Your task to perform on an android device: Show the shopping cart on newegg. Search for jbl charge 4 on newegg, select the first entry, add it to the cart, then select checkout. Image 0: 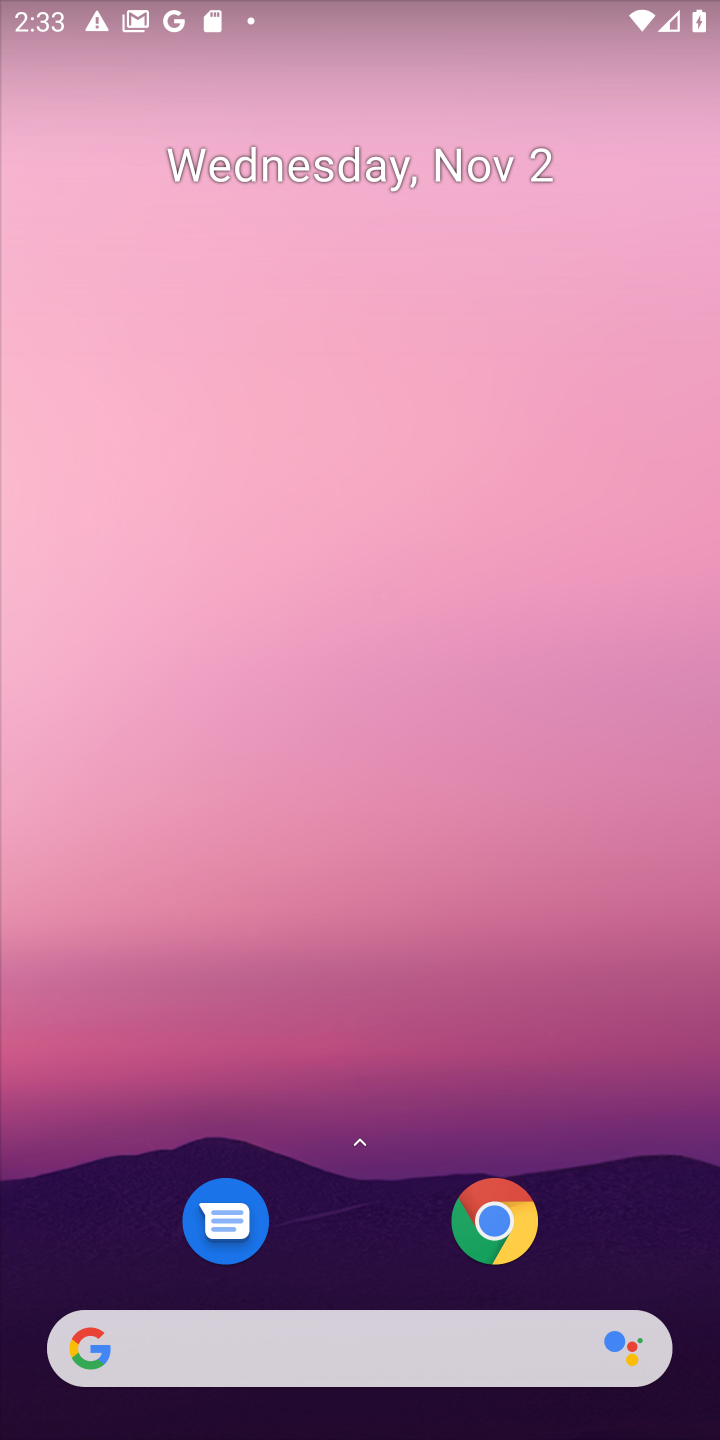
Step 0: click (456, 1336)
Your task to perform on an android device: Show the shopping cart on newegg. Search for jbl charge 4 on newegg, select the first entry, add it to the cart, then select checkout. Image 1: 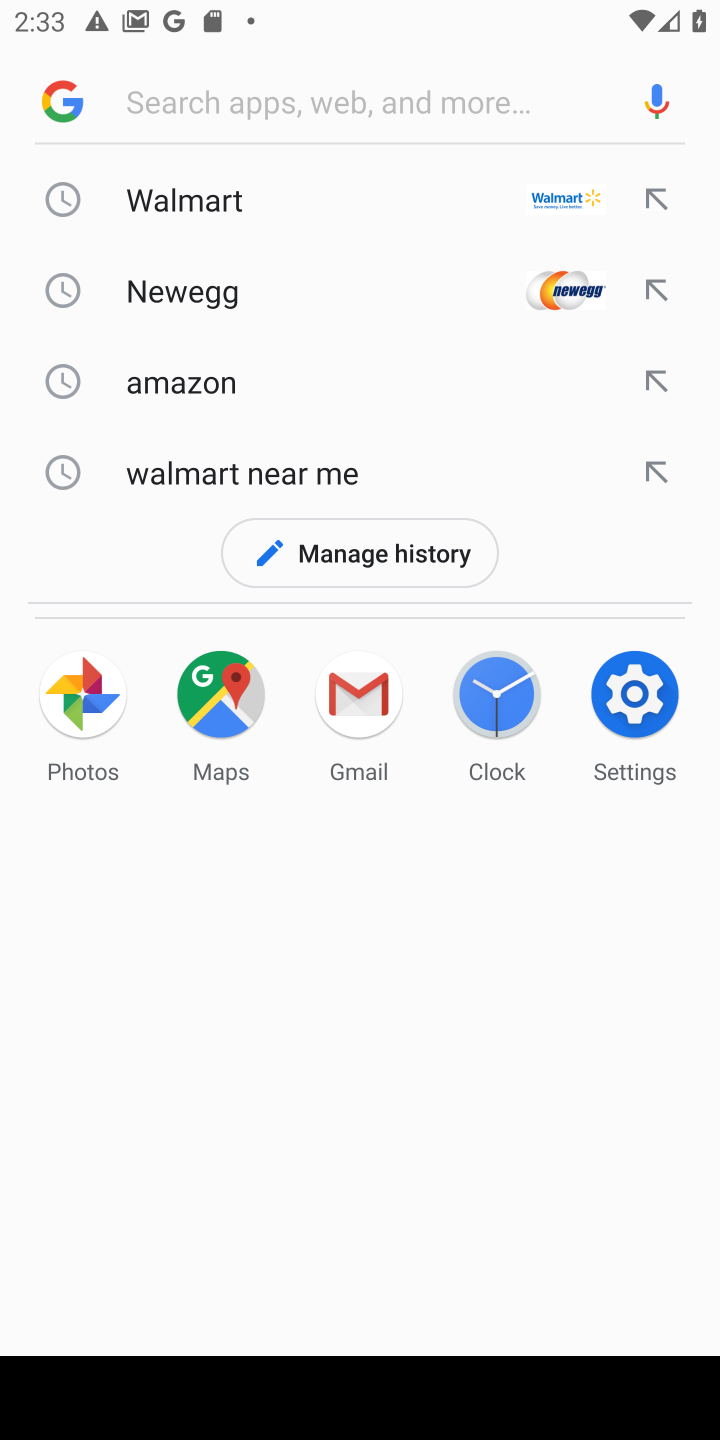
Step 1: click (484, 284)
Your task to perform on an android device: Show the shopping cart on newegg. Search for jbl charge 4 on newegg, select the first entry, add it to the cart, then select checkout. Image 2: 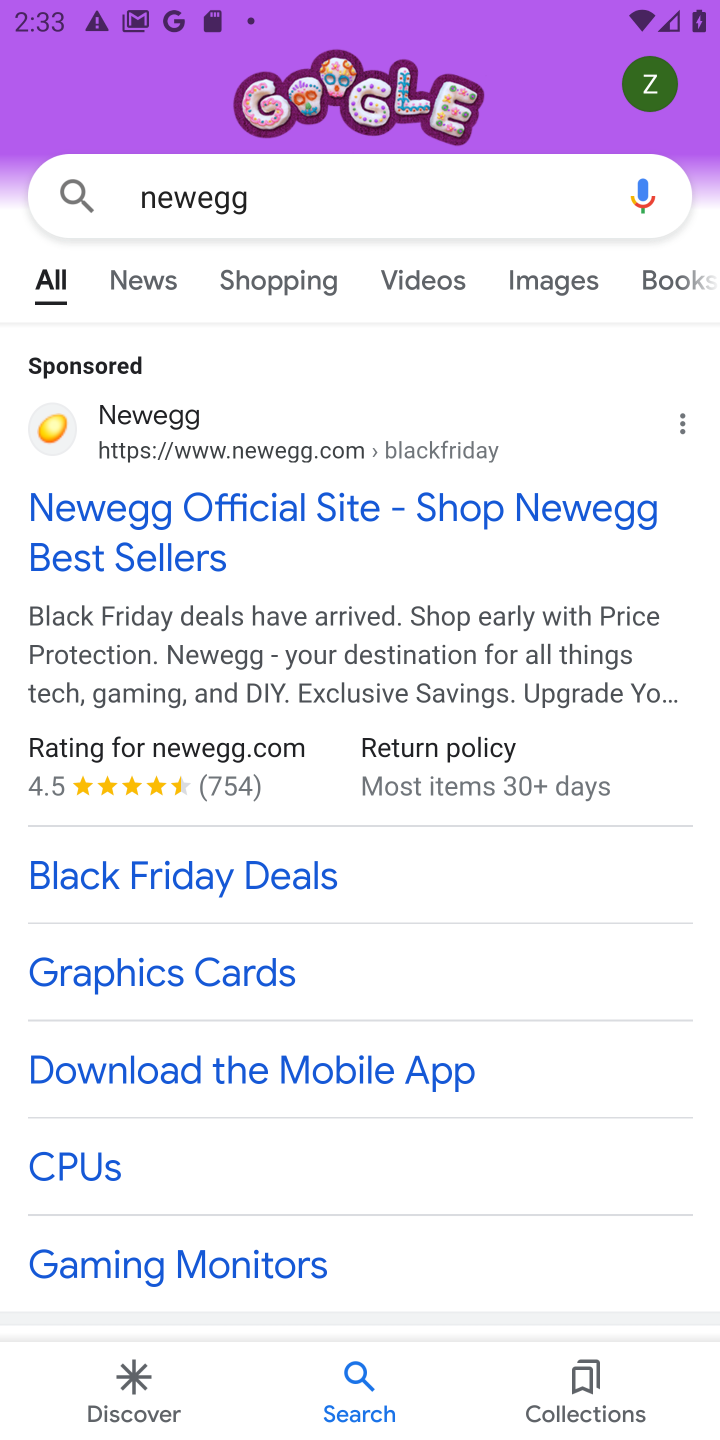
Step 2: click (350, 498)
Your task to perform on an android device: Show the shopping cart on newegg. Search for jbl charge 4 on newegg, select the first entry, add it to the cart, then select checkout. Image 3: 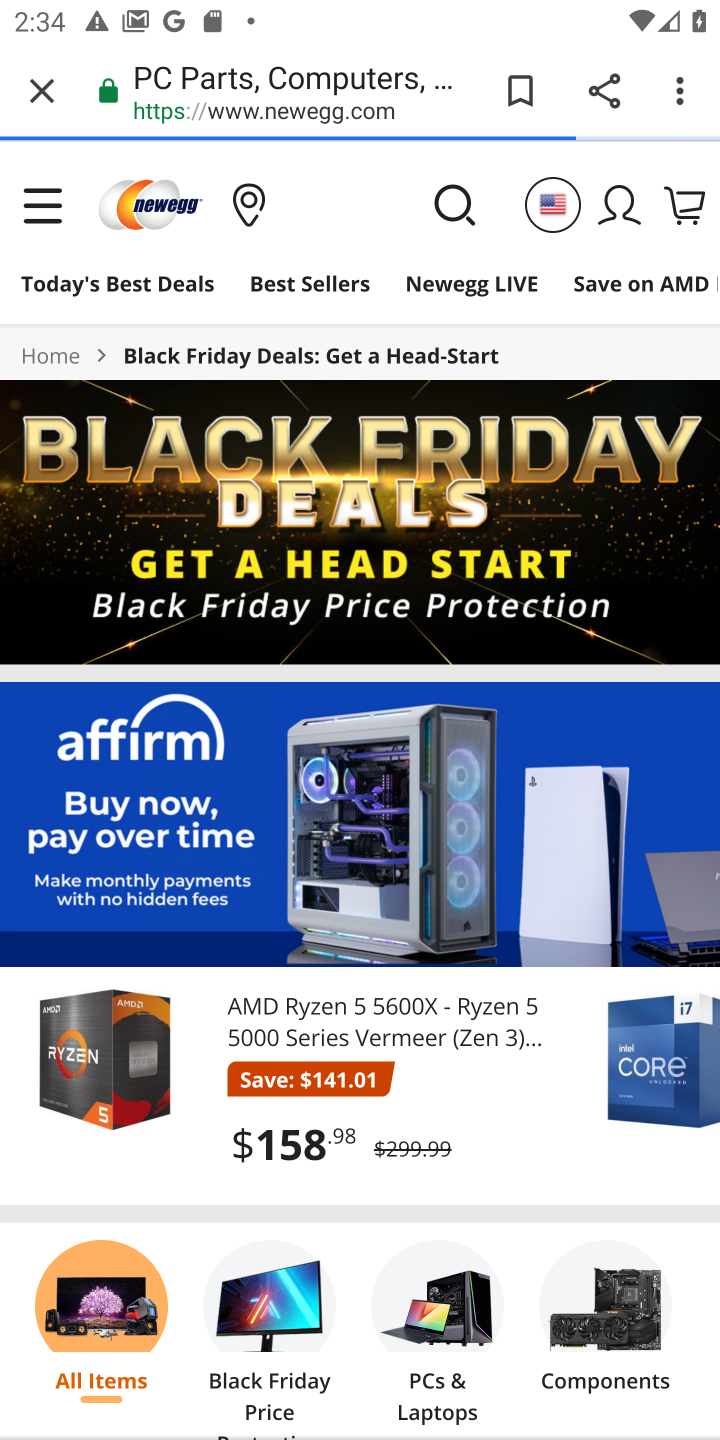
Step 3: click (472, 241)
Your task to perform on an android device: Show the shopping cart on newegg. Search for jbl charge 4 on newegg, select the first entry, add it to the cart, then select checkout. Image 4: 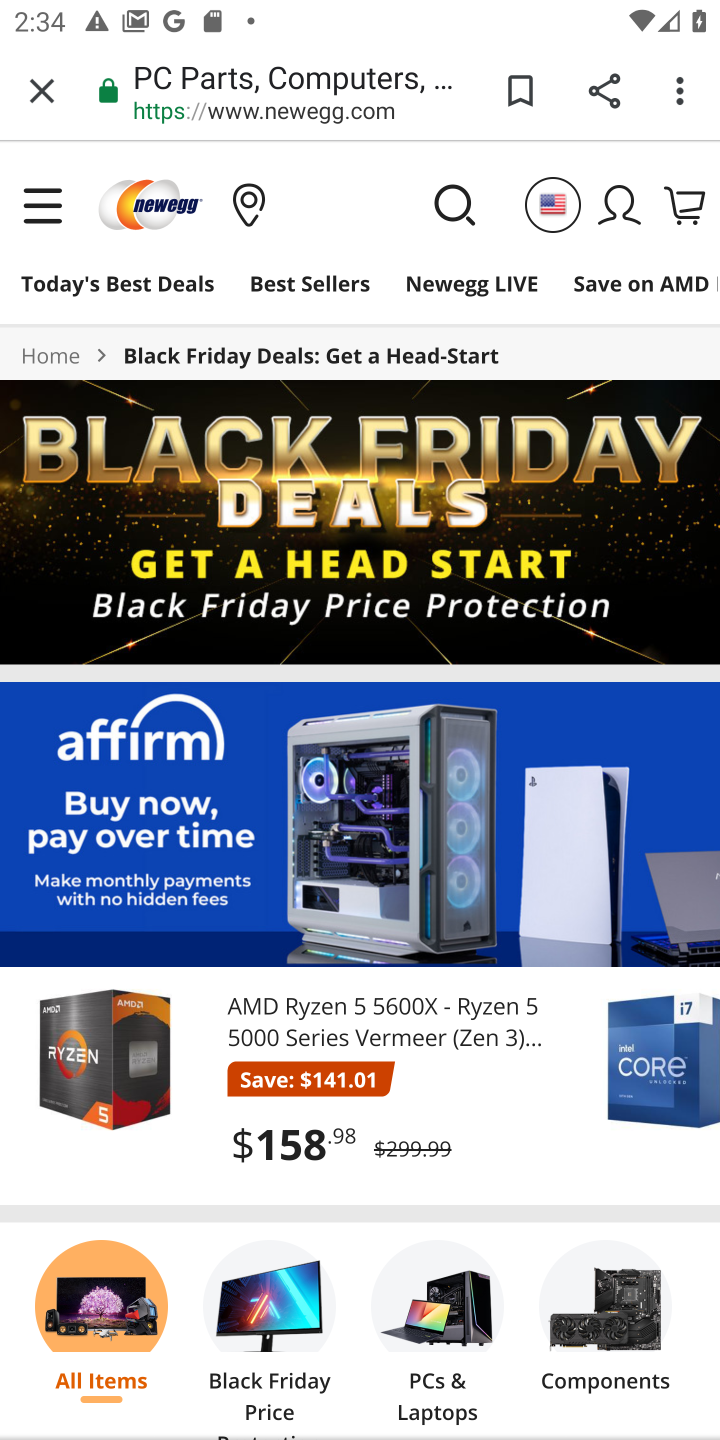
Step 4: click (461, 220)
Your task to perform on an android device: Show the shopping cart on newegg. Search for jbl charge 4 on newegg, select the first entry, add it to the cart, then select checkout. Image 5: 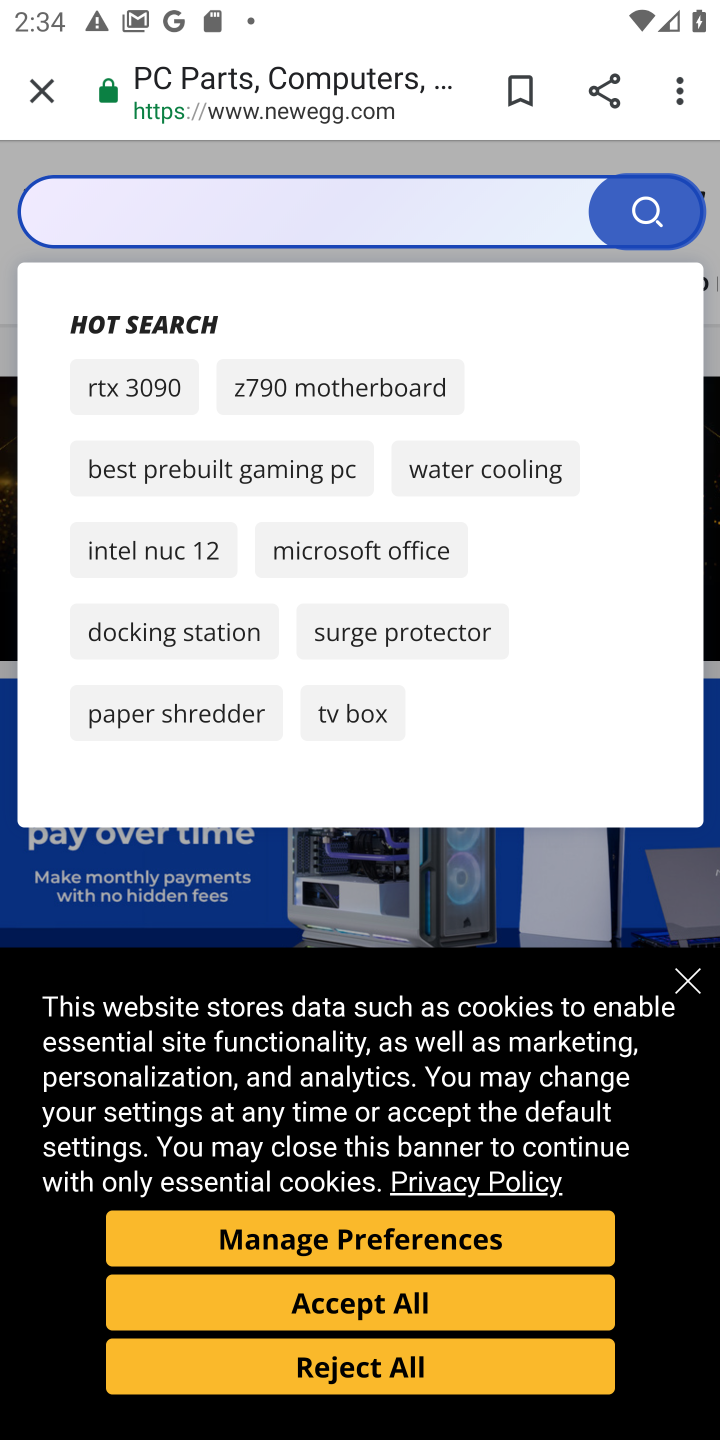
Step 5: click (461, 220)
Your task to perform on an android device: Show the shopping cart on newegg. Search for jbl charge 4 on newegg, select the first entry, add it to the cart, then select checkout. Image 6: 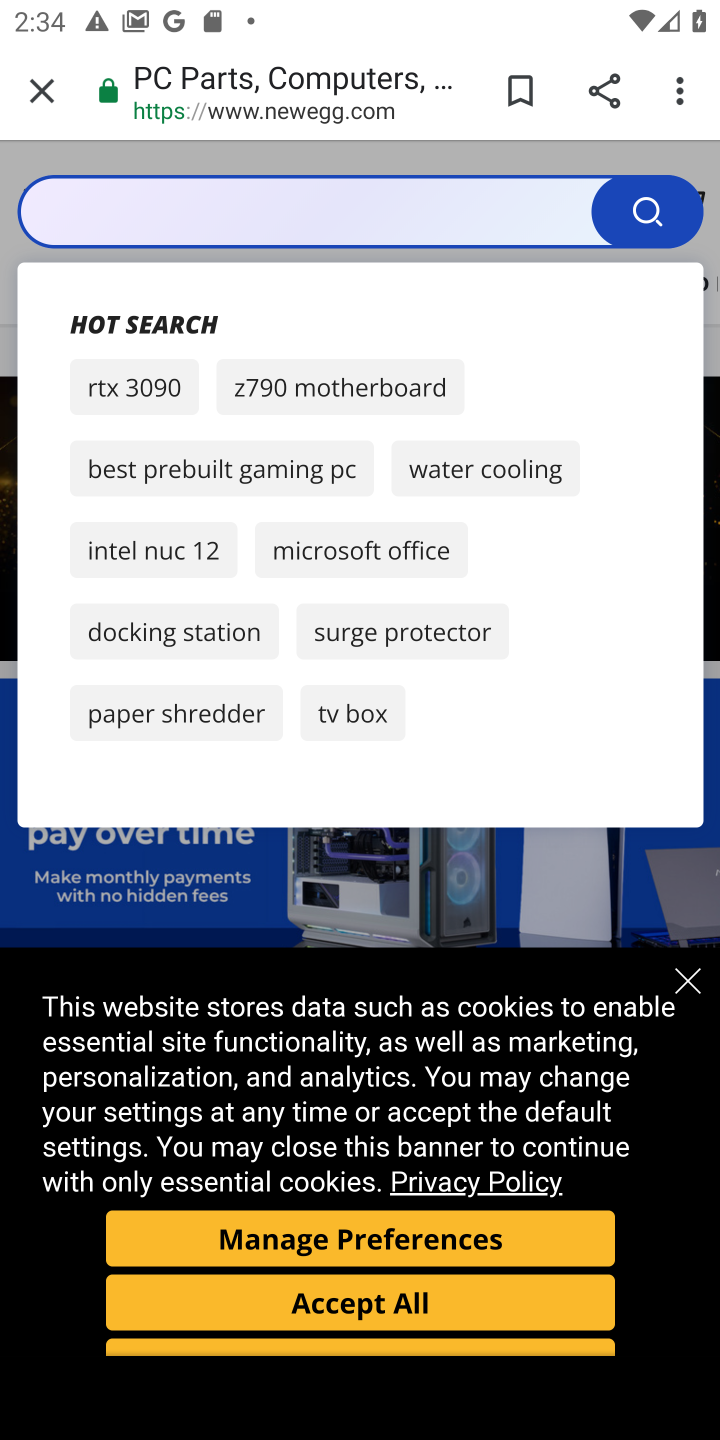
Step 6: click (461, 220)
Your task to perform on an android device: Show the shopping cart on newegg. Search for jbl charge 4 on newegg, select the first entry, add it to the cart, then select checkout. Image 7: 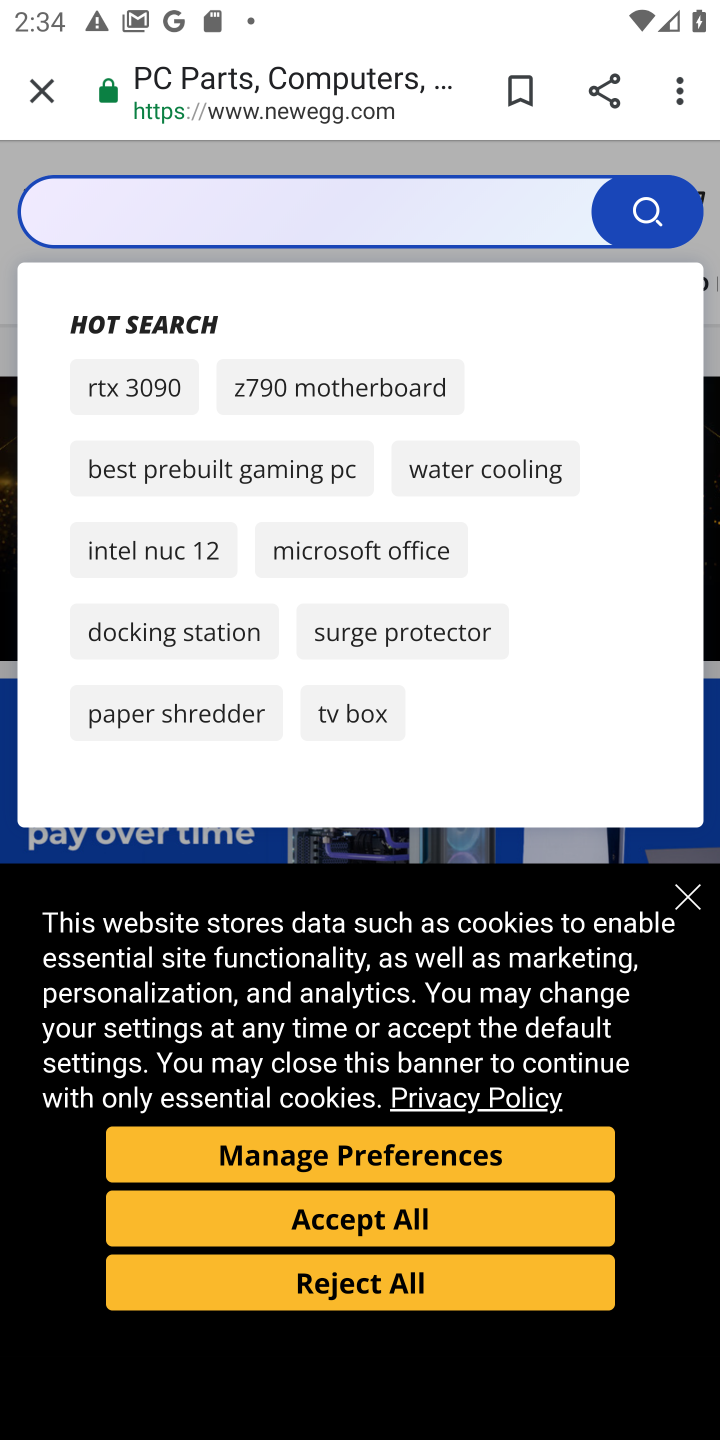
Step 7: type "jbl charge 4"
Your task to perform on an android device: Show the shopping cart on newegg. Search for jbl charge 4 on newegg, select the first entry, add it to the cart, then select checkout. Image 8: 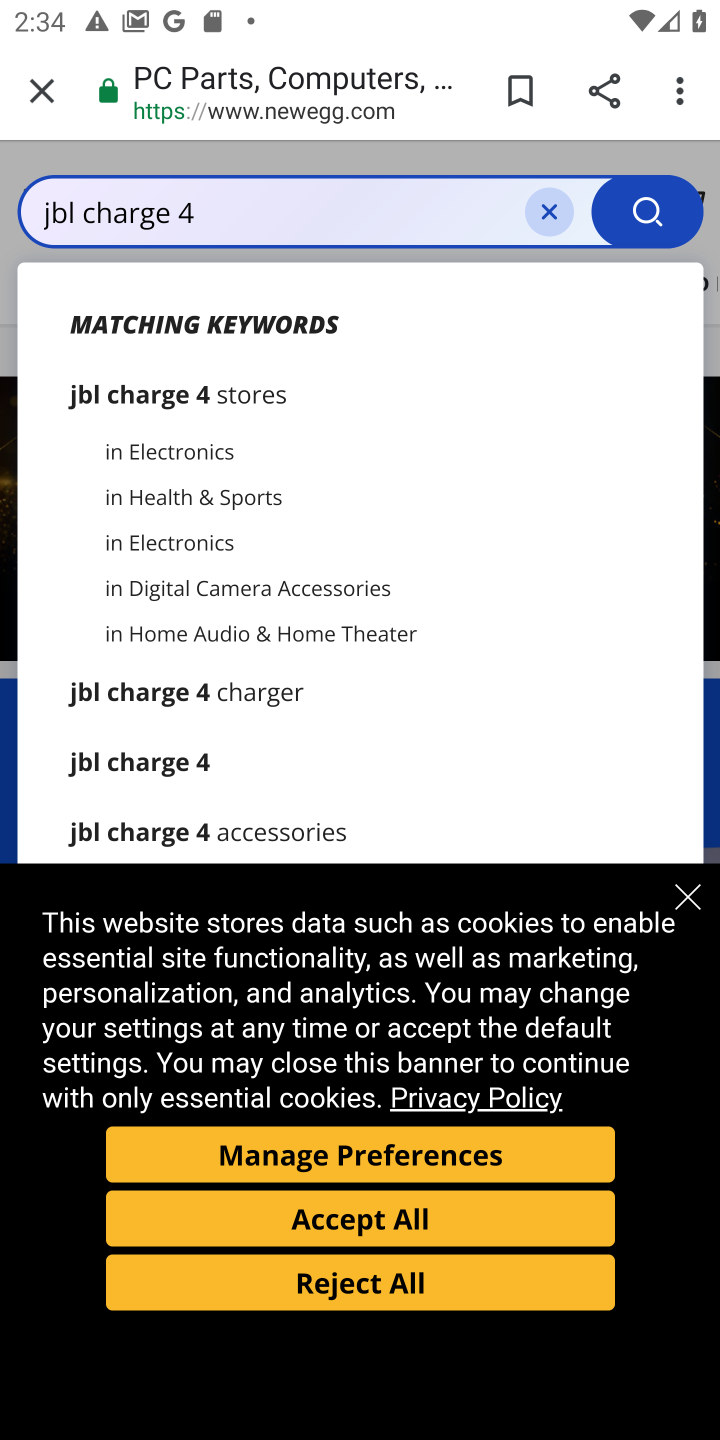
Step 8: click (656, 214)
Your task to perform on an android device: Show the shopping cart on newegg. Search for jbl charge 4 on newegg, select the first entry, add it to the cart, then select checkout. Image 9: 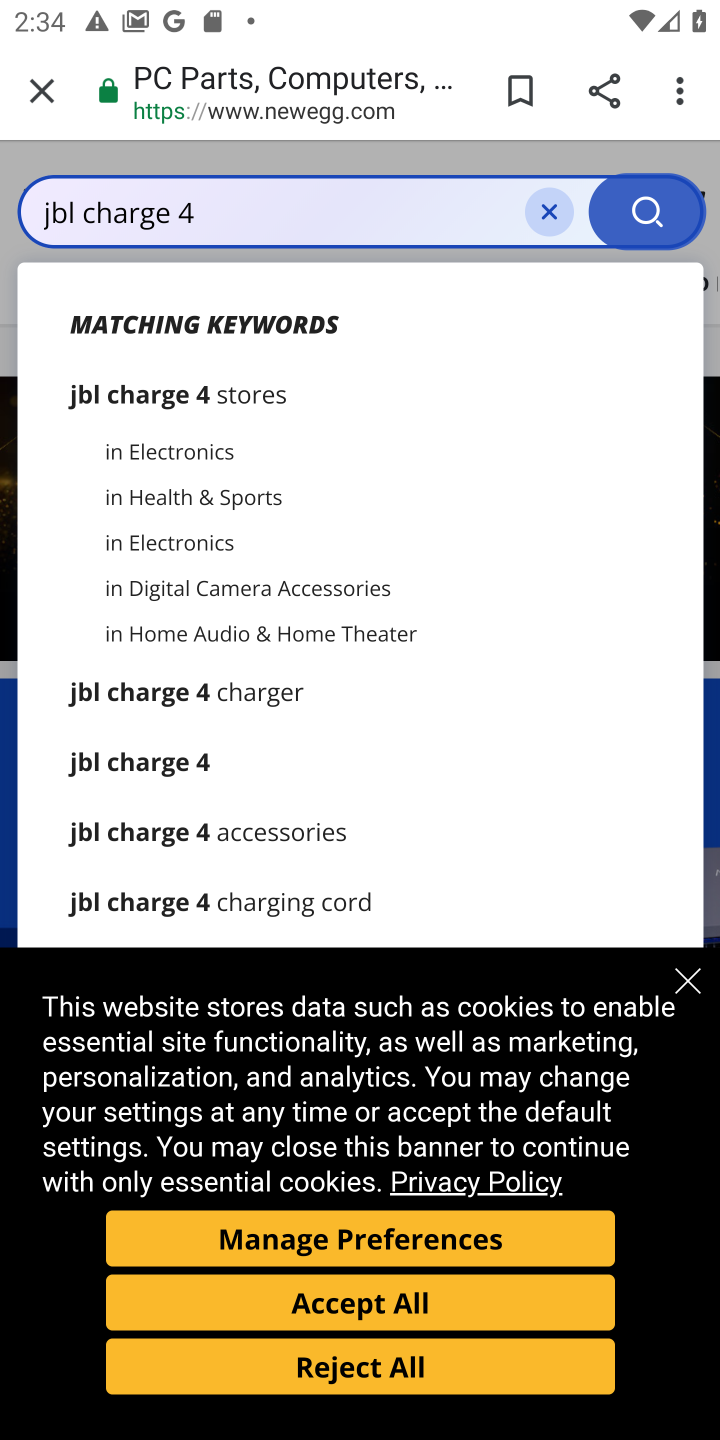
Step 9: click (298, 1326)
Your task to perform on an android device: Show the shopping cart on newegg. Search for jbl charge 4 on newegg, select the first entry, add it to the cart, then select checkout. Image 10: 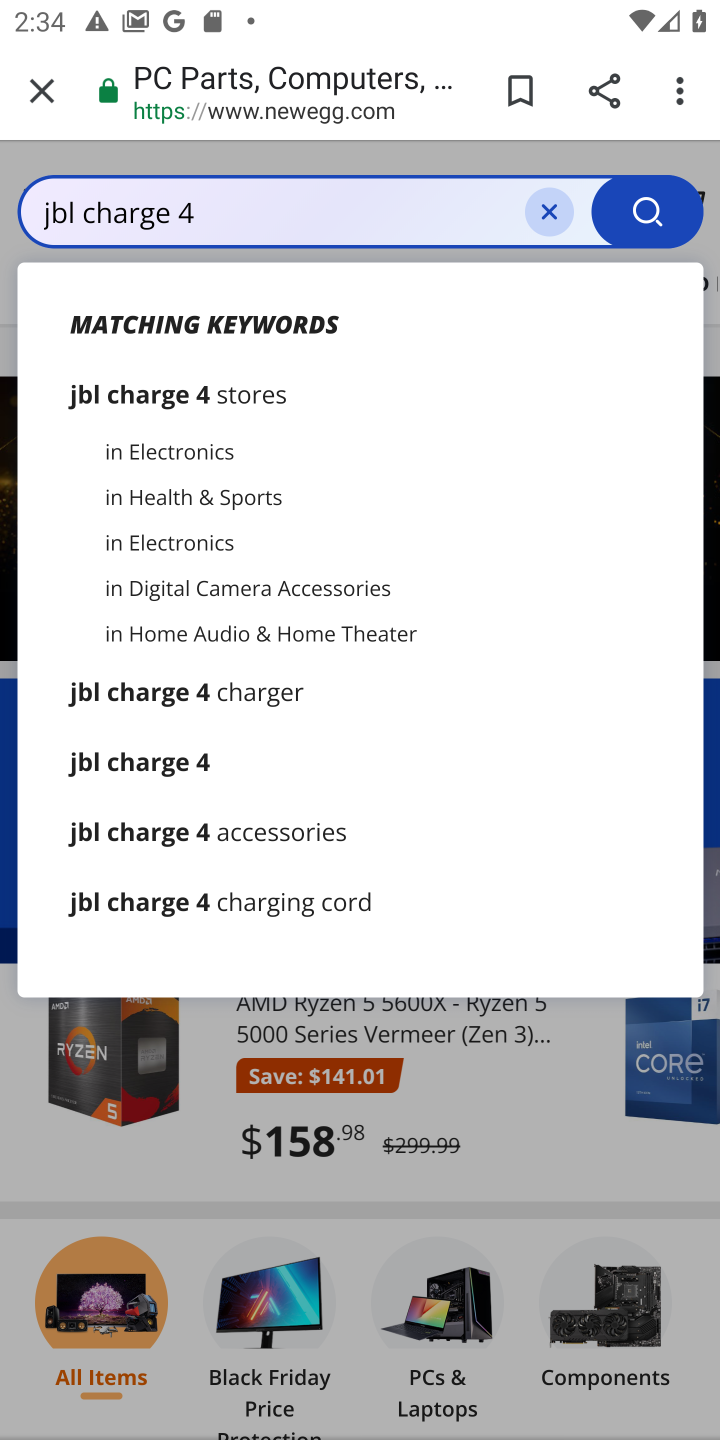
Step 10: click (659, 210)
Your task to perform on an android device: Show the shopping cart on newegg. Search for jbl charge 4 on newegg, select the first entry, add it to the cart, then select checkout. Image 11: 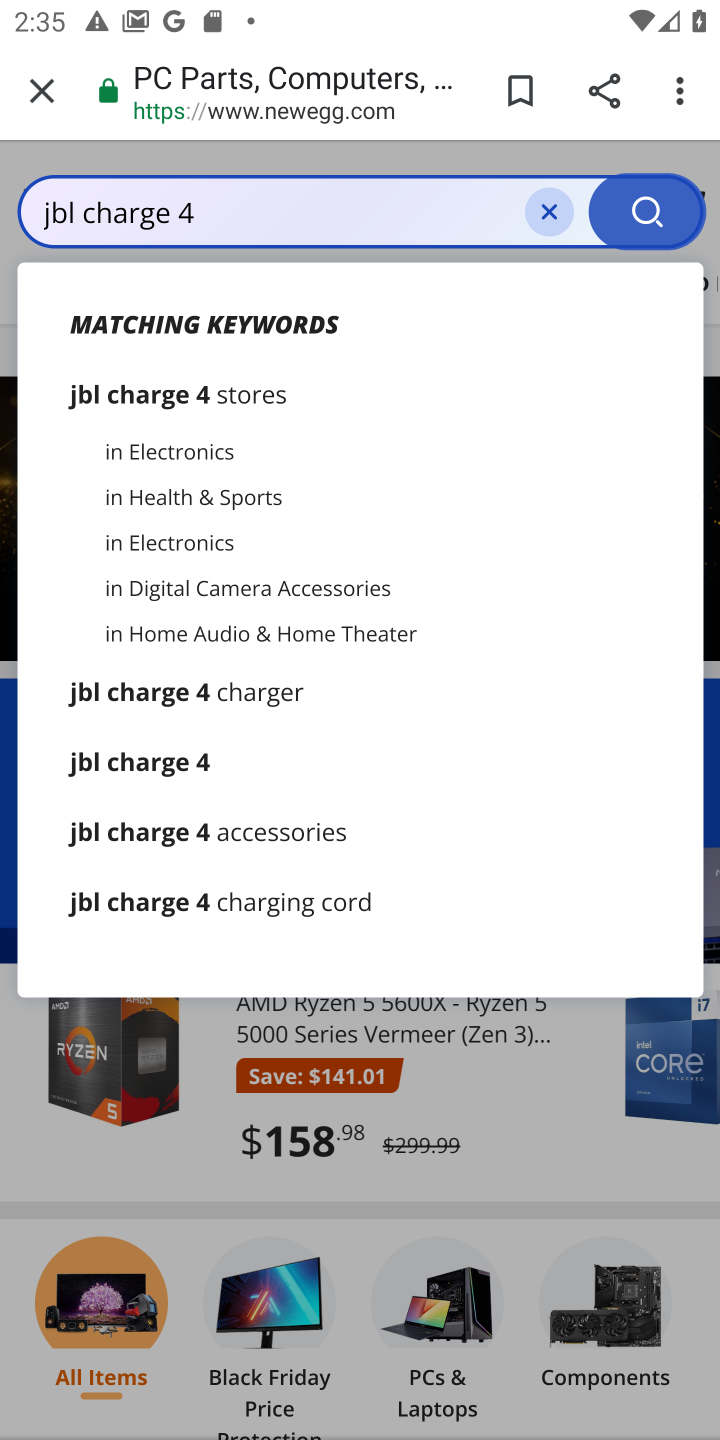
Step 11: task complete